Your task to perform on an android device: Open settings on Google Maps Image 0: 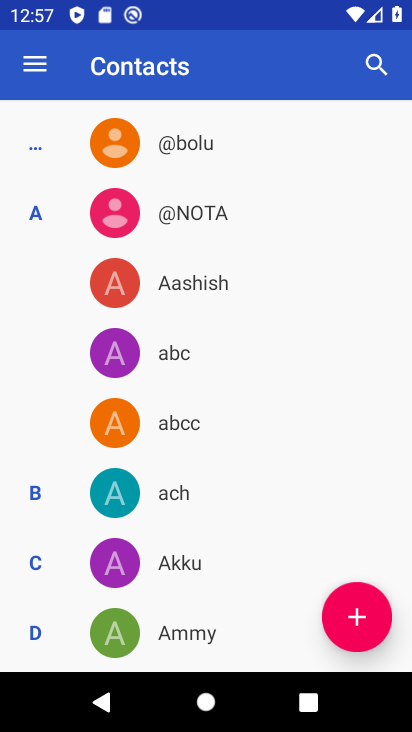
Step 0: press home button
Your task to perform on an android device: Open settings on Google Maps Image 1: 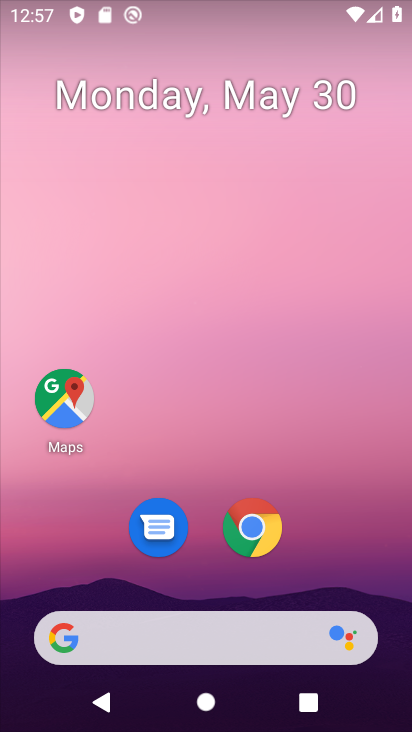
Step 1: click (74, 399)
Your task to perform on an android device: Open settings on Google Maps Image 2: 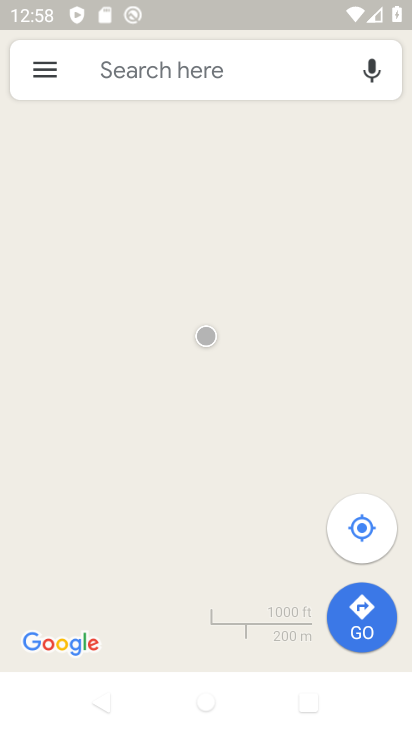
Step 2: click (42, 72)
Your task to perform on an android device: Open settings on Google Maps Image 3: 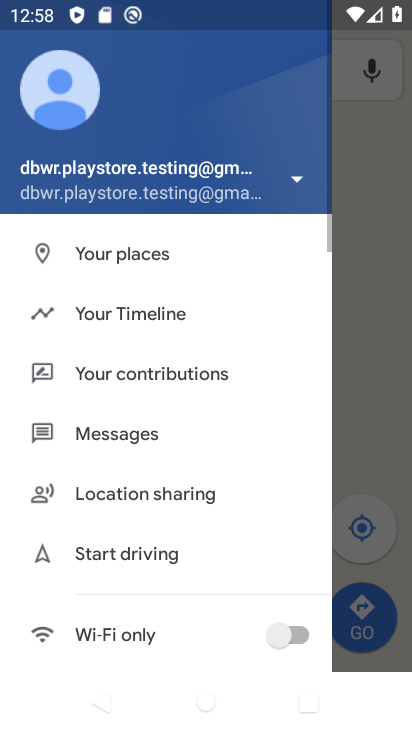
Step 3: drag from (152, 606) to (207, 118)
Your task to perform on an android device: Open settings on Google Maps Image 4: 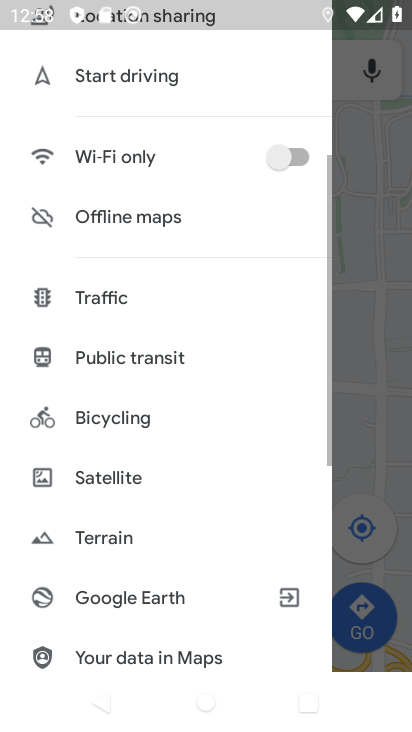
Step 4: drag from (127, 602) to (253, 128)
Your task to perform on an android device: Open settings on Google Maps Image 5: 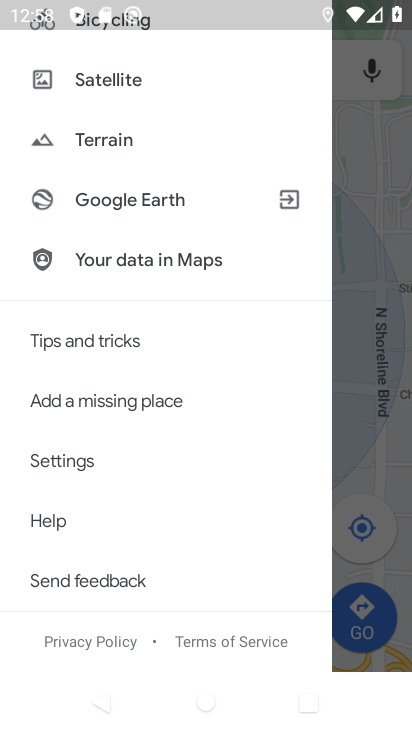
Step 5: click (99, 462)
Your task to perform on an android device: Open settings on Google Maps Image 6: 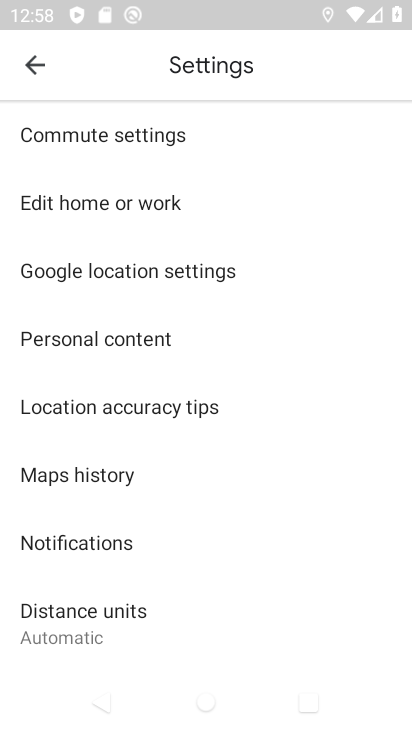
Step 6: task complete